Your task to perform on an android device: turn off priority inbox in the gmail app Image 0: 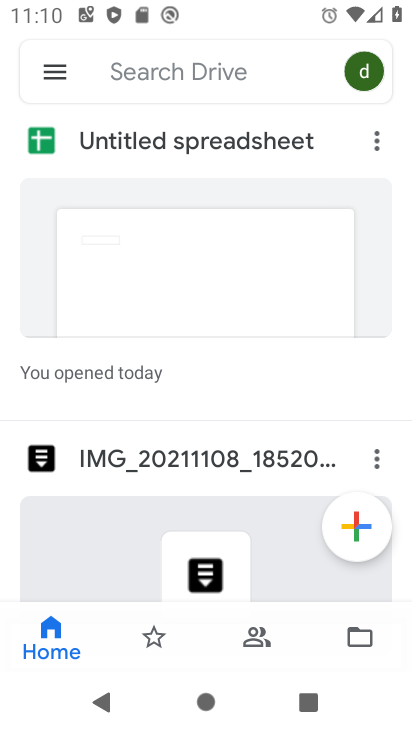
Step 0: press home button
Your task to perform on an android device: turn off priority inbox in the gmail app Image 1: 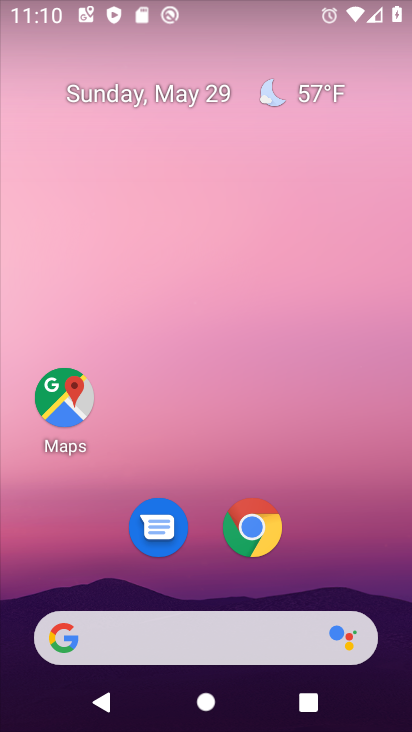
Step 1: drag from (187, 582) to (252, 12)
Your task to perform on an android device: turn off priority inbox in the gmail app Image 2: 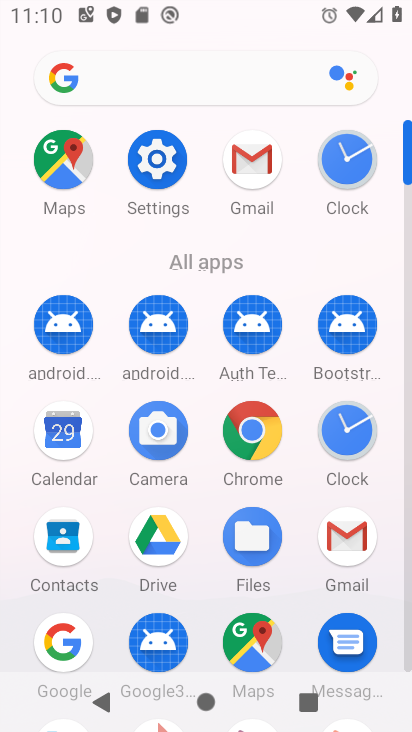
Step 2: click (254, 159)
Your task to perform on an android device: turn off priority inbox in the gmail app Image 3: 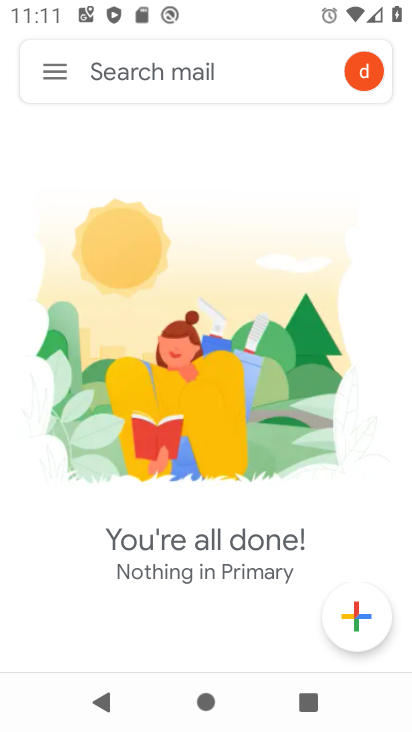
Step 3: click (44, 63)
Your task to perform on an android device: turn off priority inbox in the gmail app Image 4: 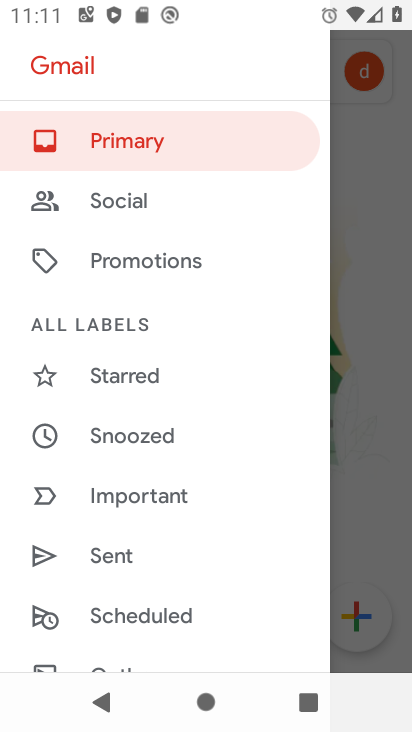
Step 4: drag from (113, 634) to (224, 35)
Your task to perform on an android device: turn off priority inbox in the gmail app Image 5: 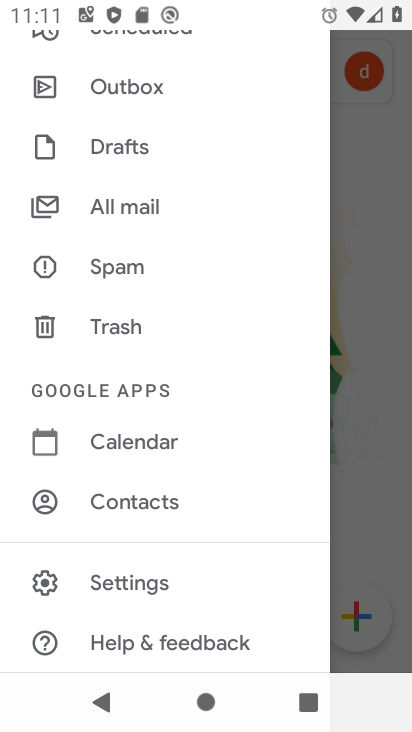
Step 5: click (92, 615)
Your task to perform on an android device: turn off priority inbox in the gmail app Image 6: 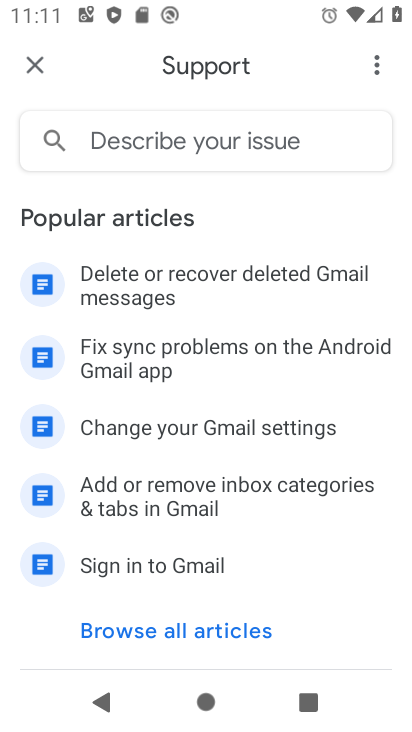
Step 6: click (38, 68)
Your task to perform on an android device: turn off priority inbox in the gmail app Image 7: 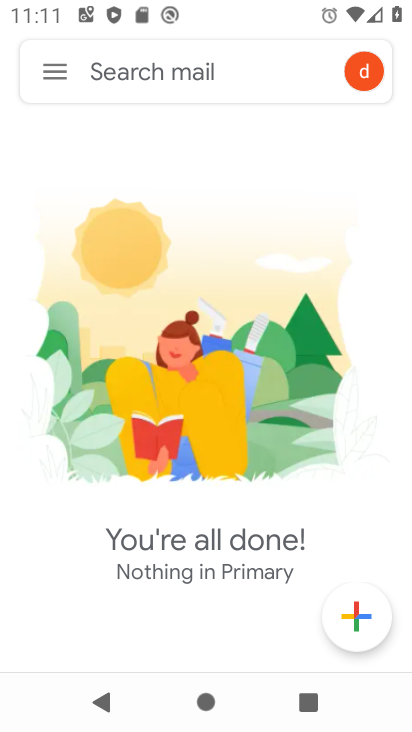
Step 7: click (33, 66)
Your task to perform on an android device: turn off priority inbox in the gmail app Image 8: 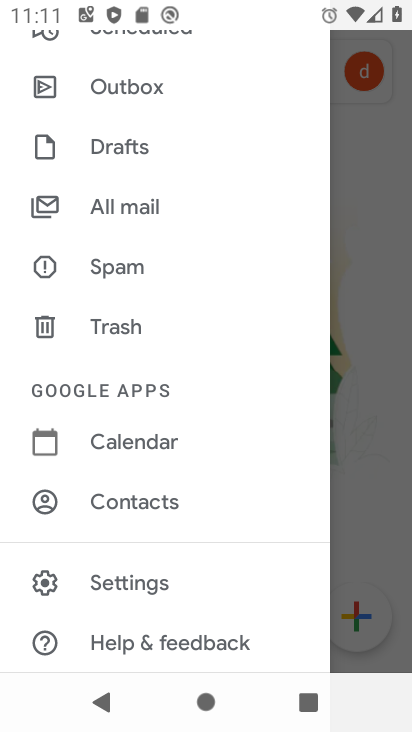
Step 8: click (77, 567)
Your task to perform on an android device: turn off priority inbox in the gmail app Image 9: 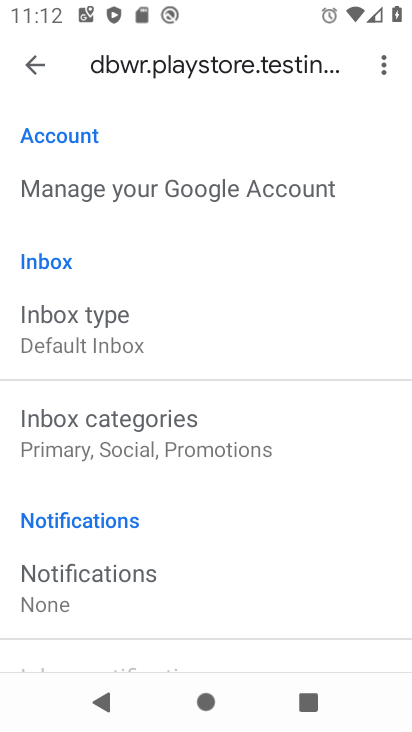
Step 9: click (158, 333)
Your task to perform on an android device: turn off priority inbox in the gmail app Image 10: 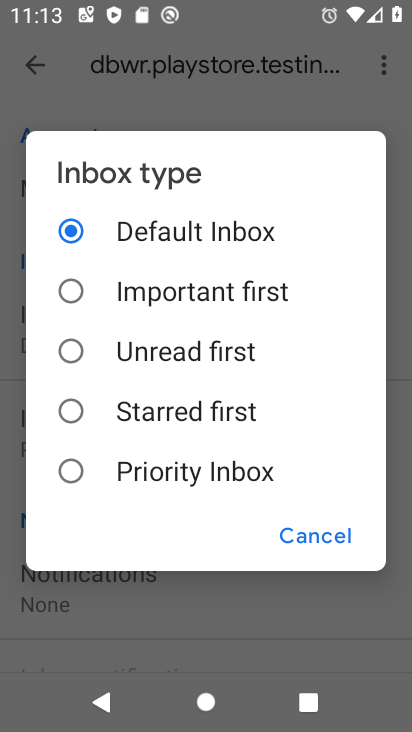
Step 10: task complete